Your task to perform on an android device: Clear the shopping cart on target. Image 0: 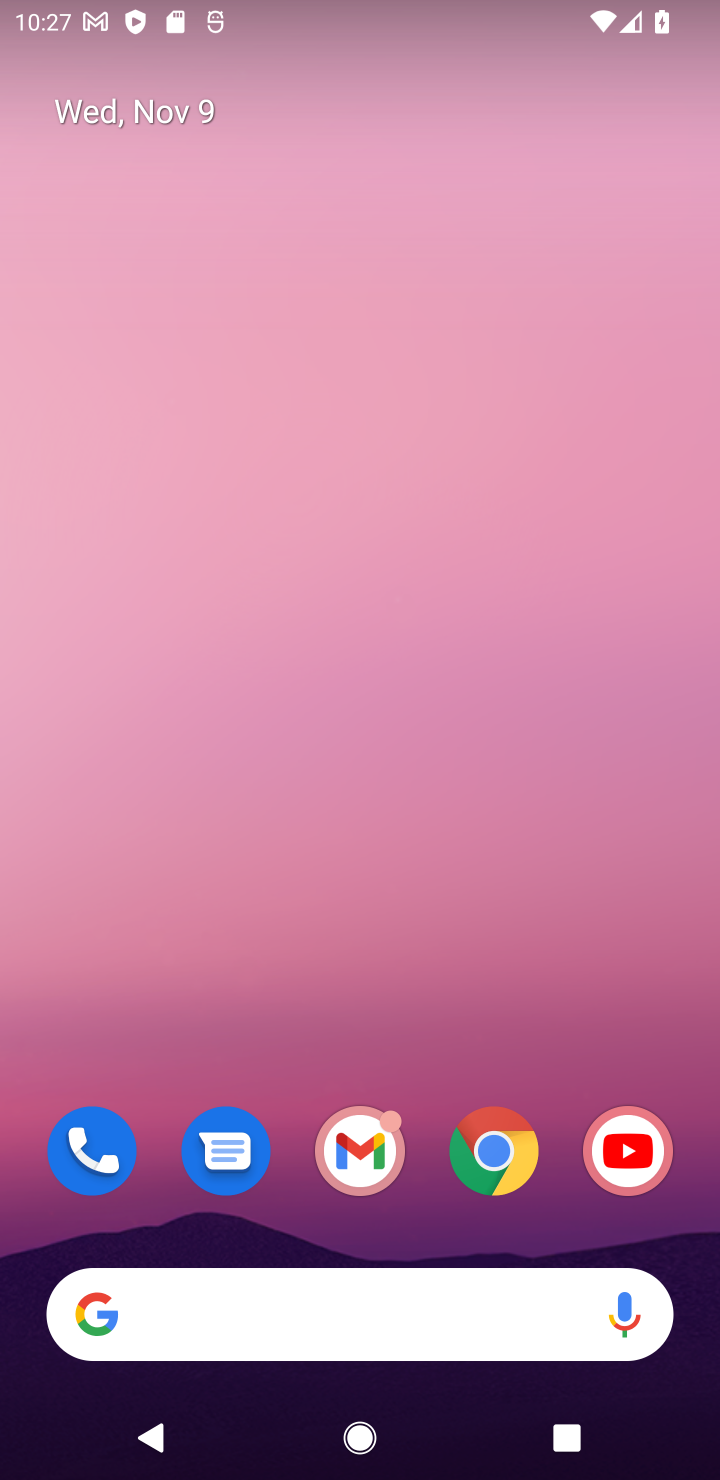
Step 0: click (495, 1148)
Your task to perform on an android device: Clear the shopping cart on target. Image 1: 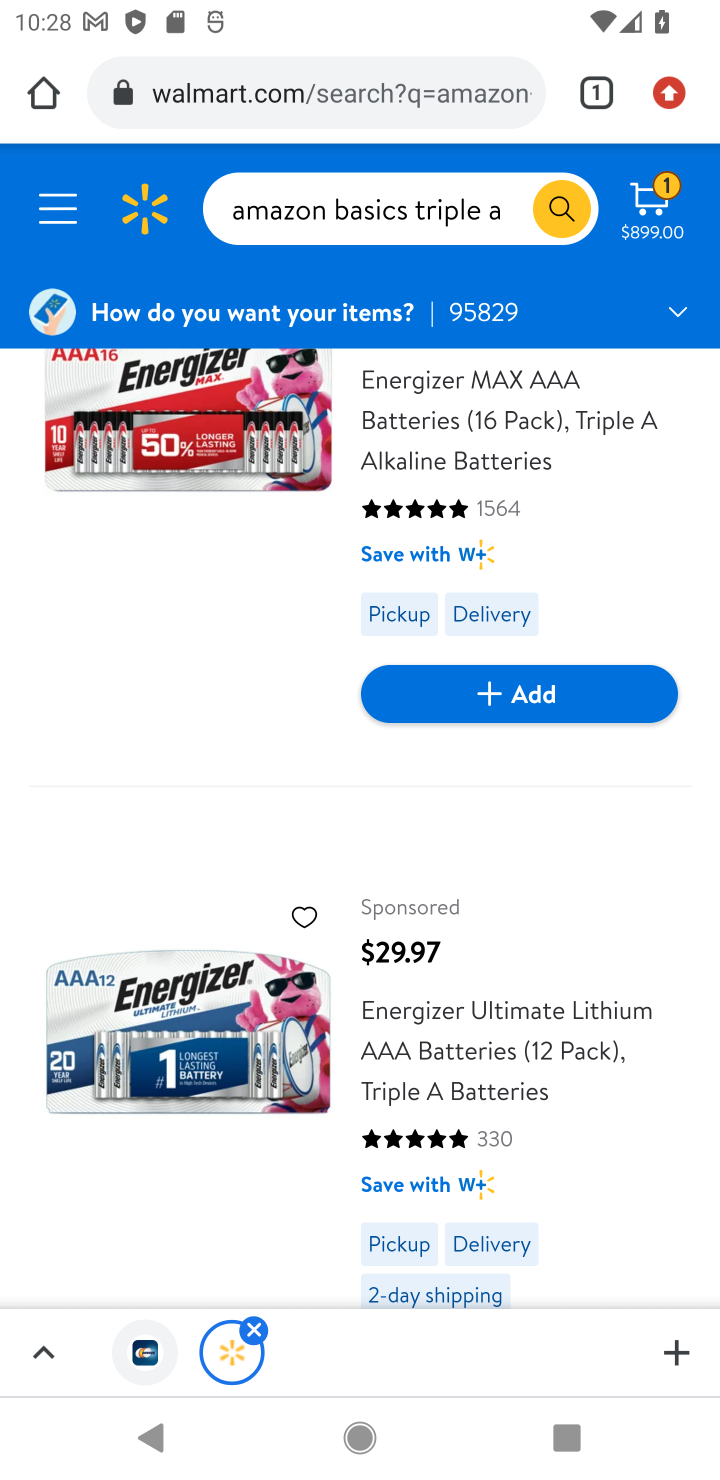
Step 1: click (320, 100)
Your task to perform on an android device: Clear the shopping cart on target. Image 2: 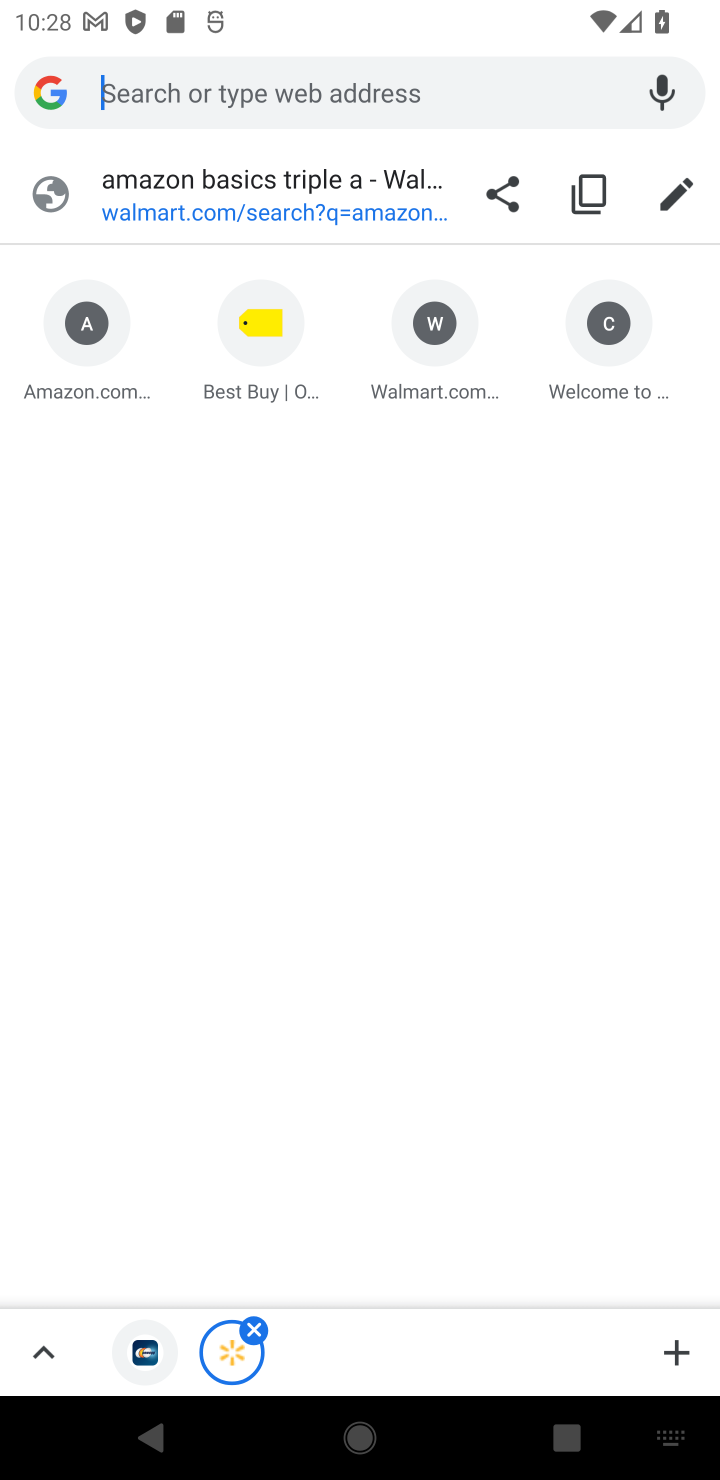
Step 2: press enter
Your task to perform on an android device: Clear the shopping cart on target. Image 3: 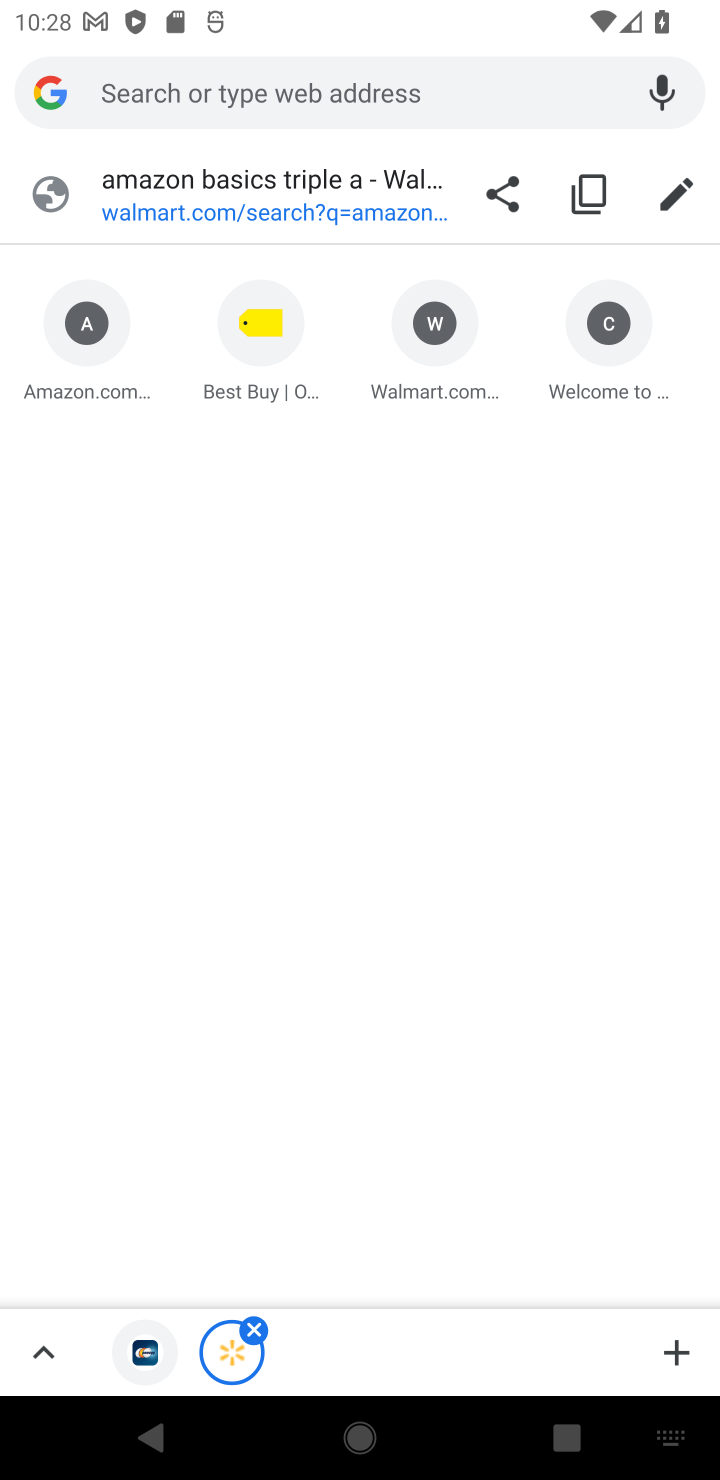
Step 3: type "target"
Your task to perform on an android device: Clear the shopping cart on target. Image 4: 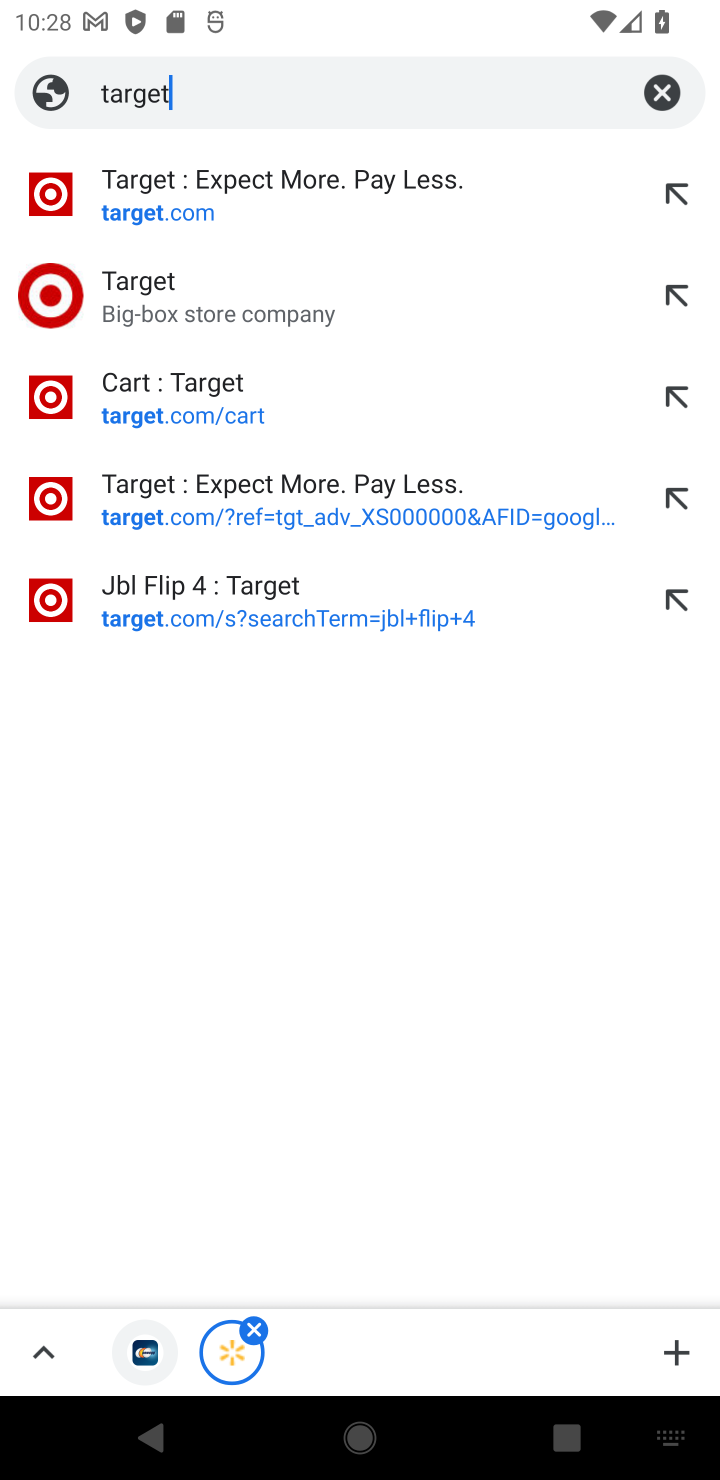
Step 4: click (314, 177)
Your task to perform on an android device: Clear the shopping cart on target. Image 5: 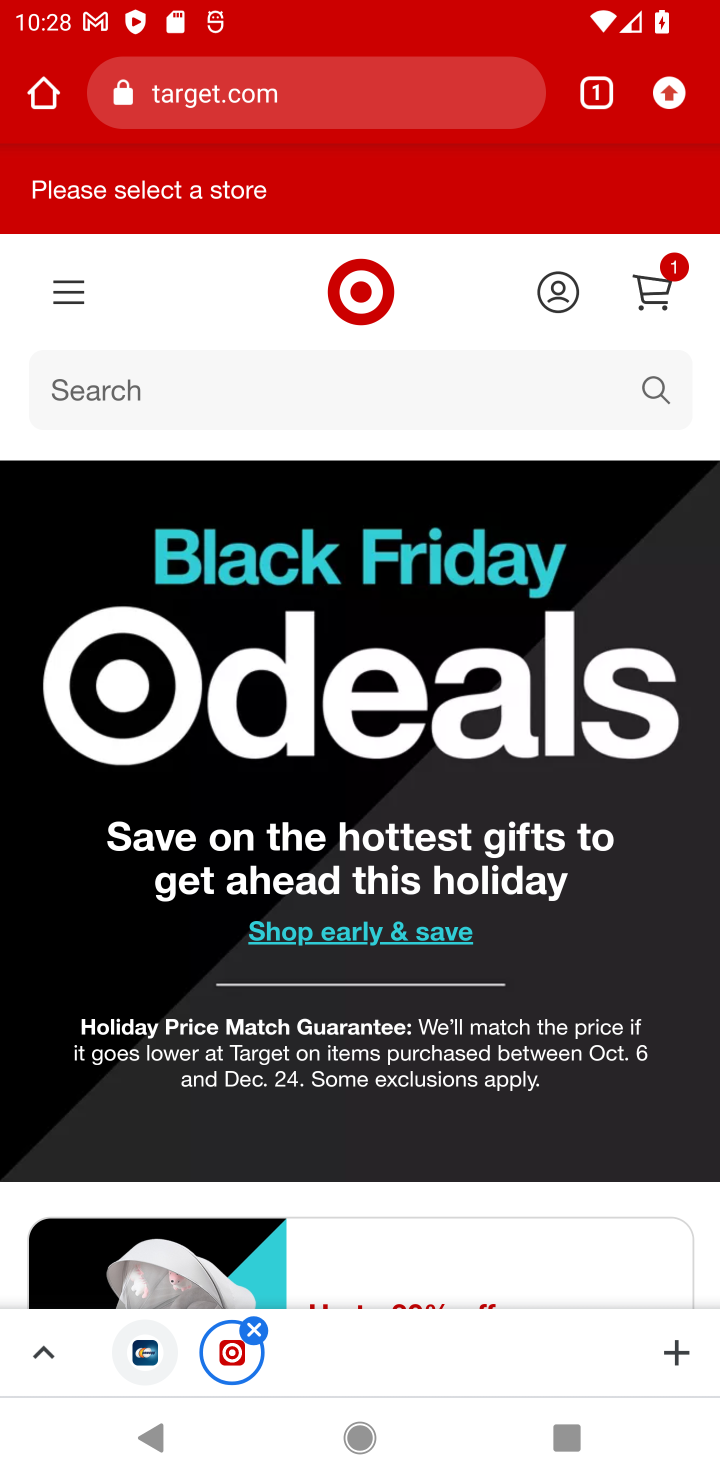
Step 5: click (663, 292)
Your task to perform on an android device: Clear the shopping cart on target. Image 6: 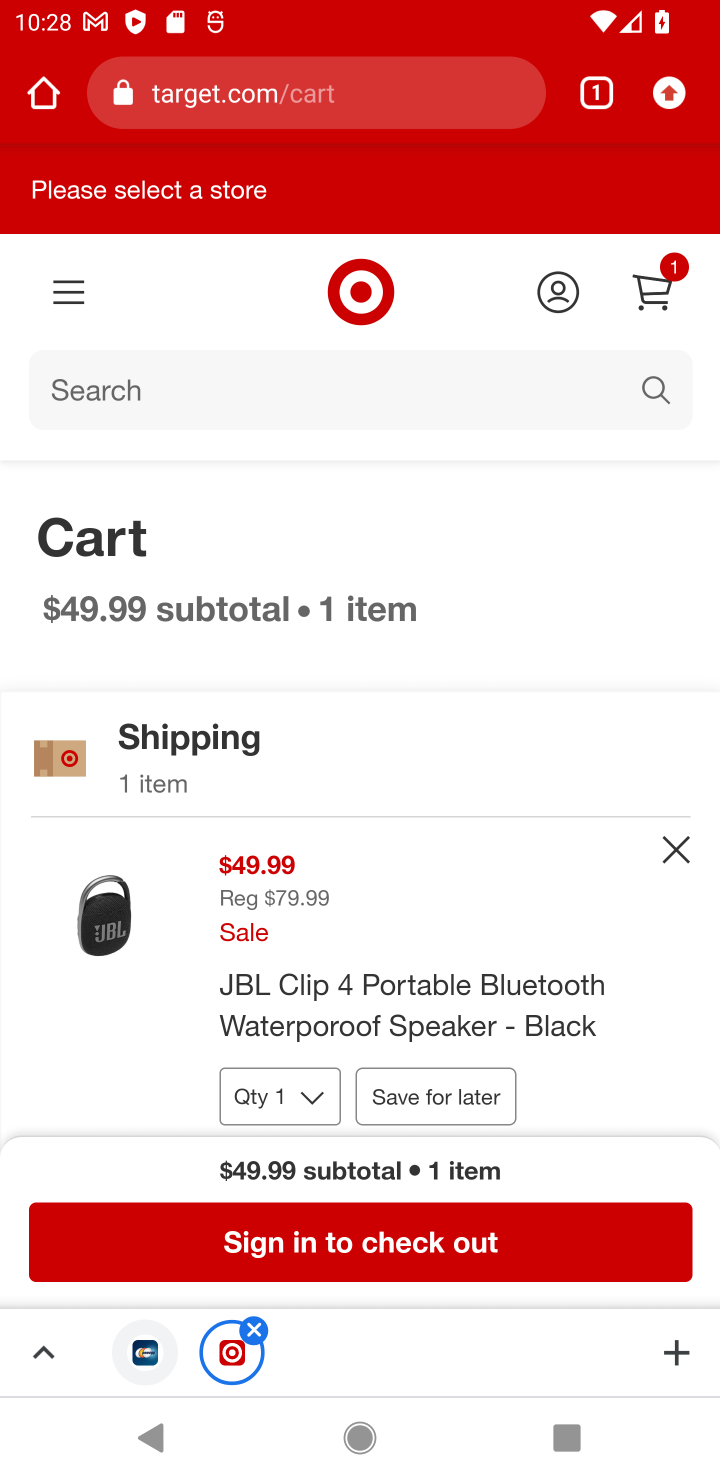
Step 6: click (665, 846)
Your task to perform on an android device: Clear the shopping cart on target. Image 7: 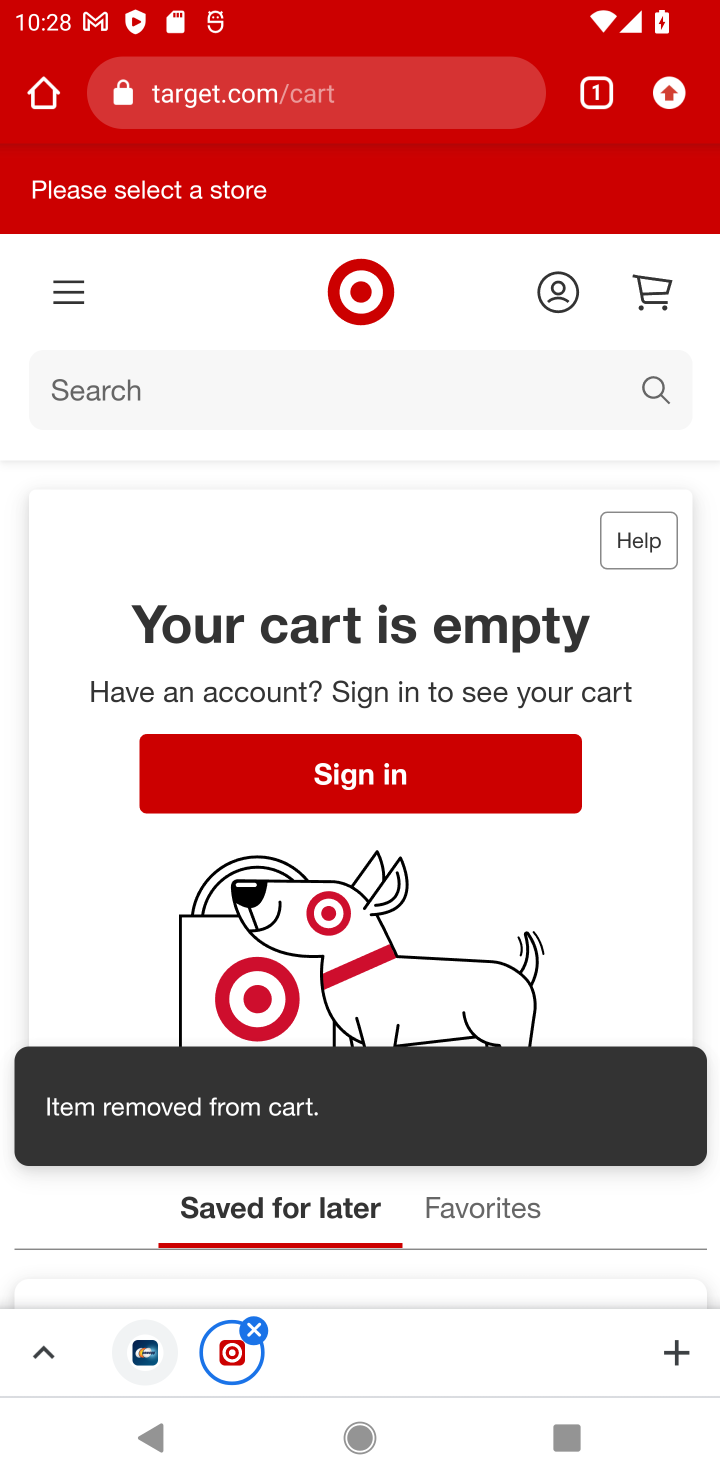
Step 7: task complete